Your task to perform on an android device: Clear the cart on amazon.com. Add razer blade to the cart on amazon.com Image 0: 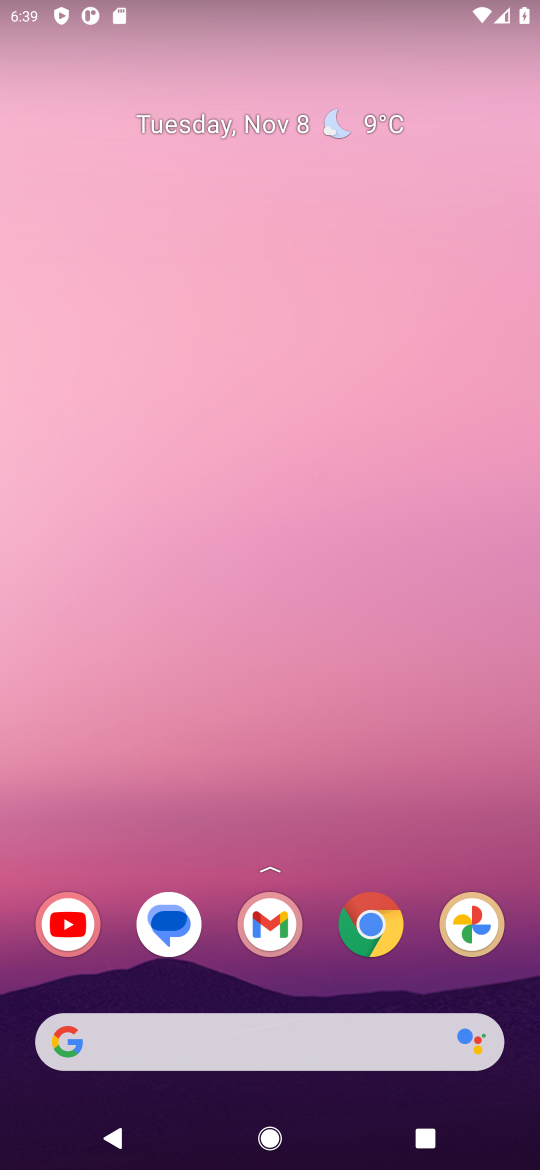
Step 0: click (238, 1049)
Your task to perform on an android device: Clear the cart on amazon.com. Add razer blade to the cart on amazon.com Image 1: 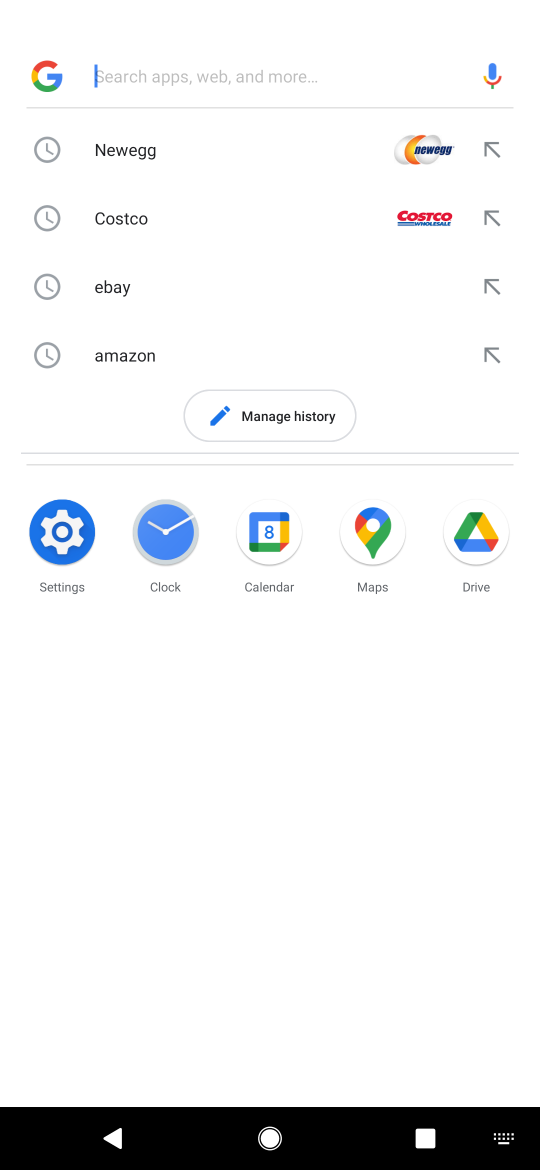
Step 1: click (119, 354)
Your task to perform on an android device: Clear the cart on amazon.com. Add razer blade to the cart on amazon.com Image 2: 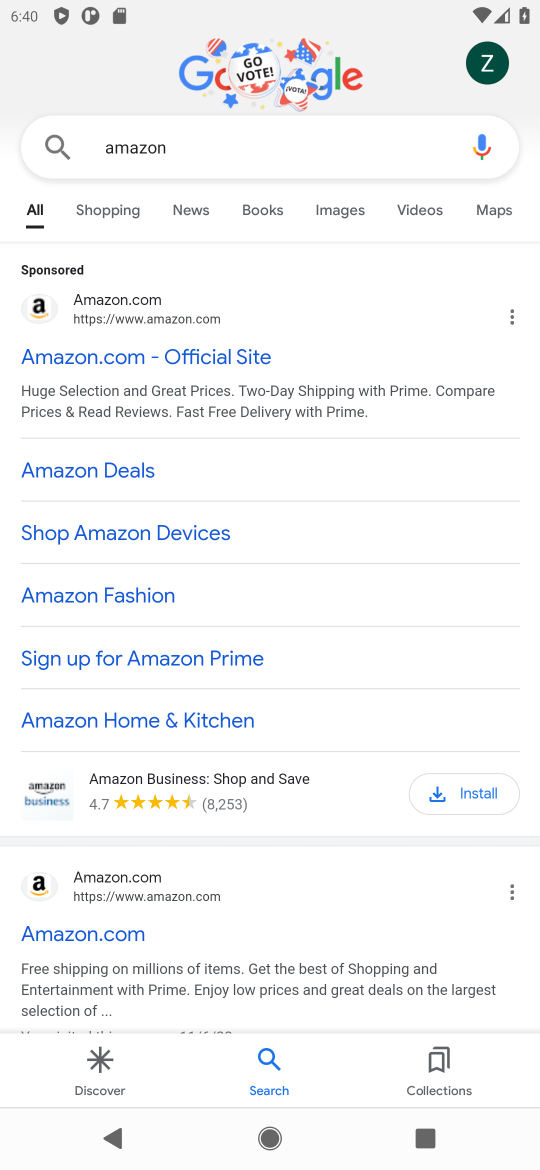
Step 2: click (119, 354)
Your task to perform on an android device: Clear the cart on amazon.com. Add razer blade to the cart on amazon.com Image 3: 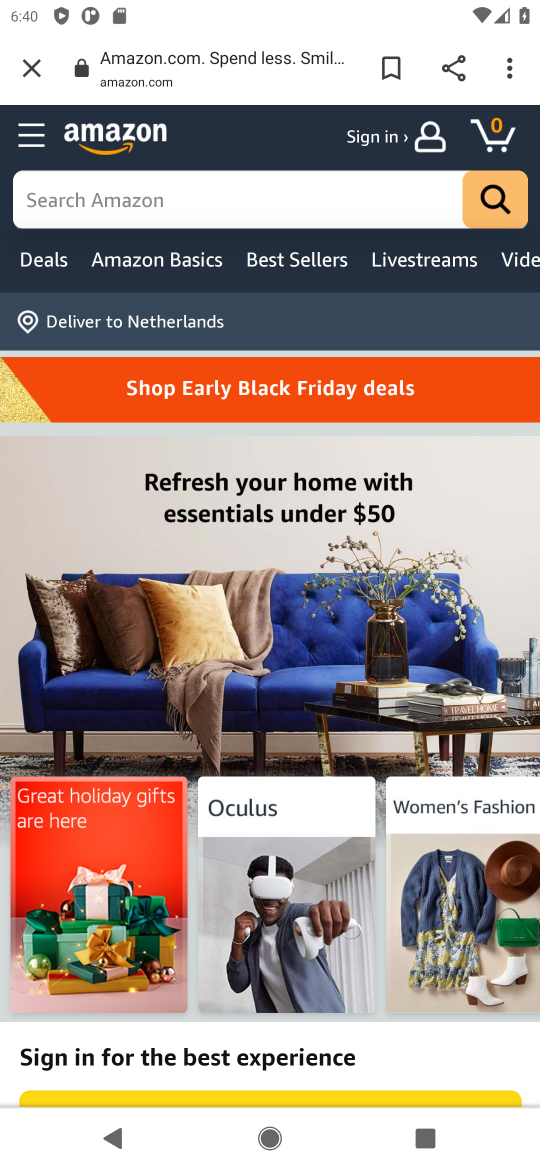
Step 3: click (492, 124)
Your task to perform on an android device: Clear the cart on amazon.com. Add razer blade to the cart on amazon.com Image 4: 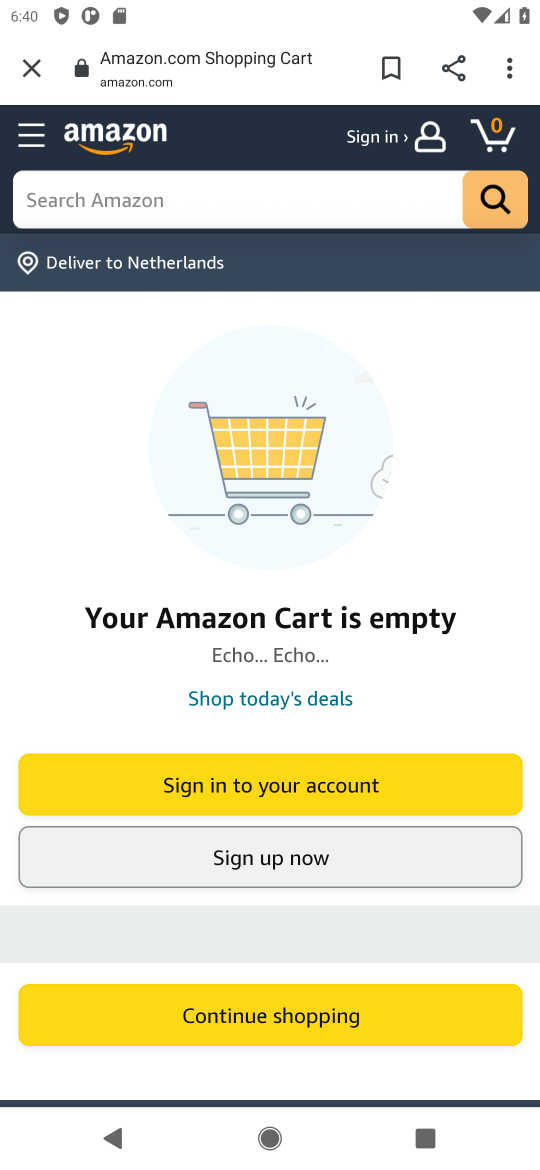
Step 4: click (309, 212)
Your task to perform on an android device: Clear the cart on amazon.com. Add razer blade to the cart on amazon.com Image 5: 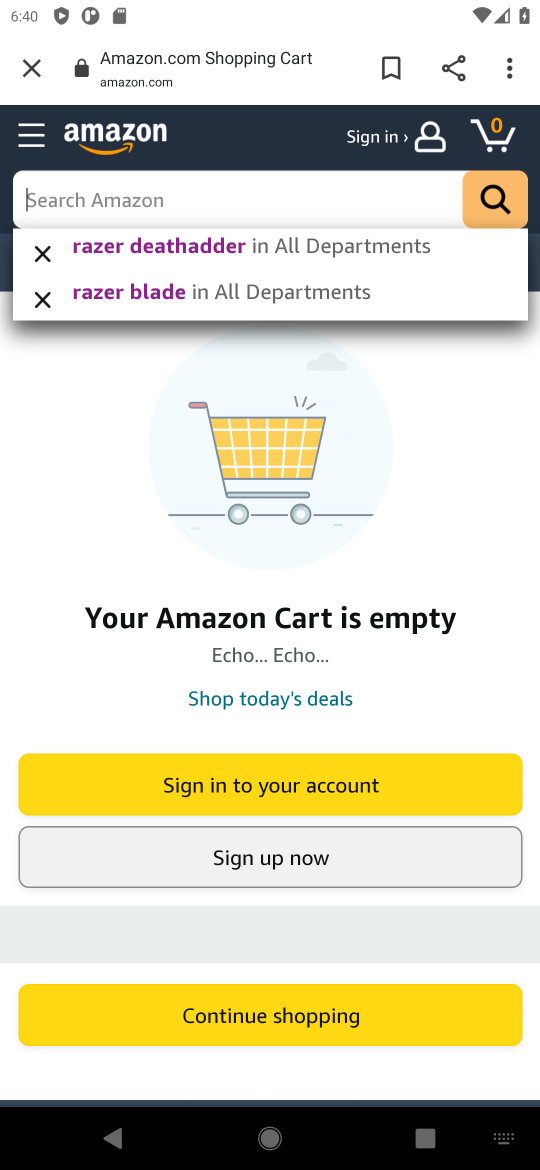
Step 5: type " razer blade "
Your task to perform on an android device: Clear the cart on amazon.com. Add razer blade to the cart on amazon.com Image 6: 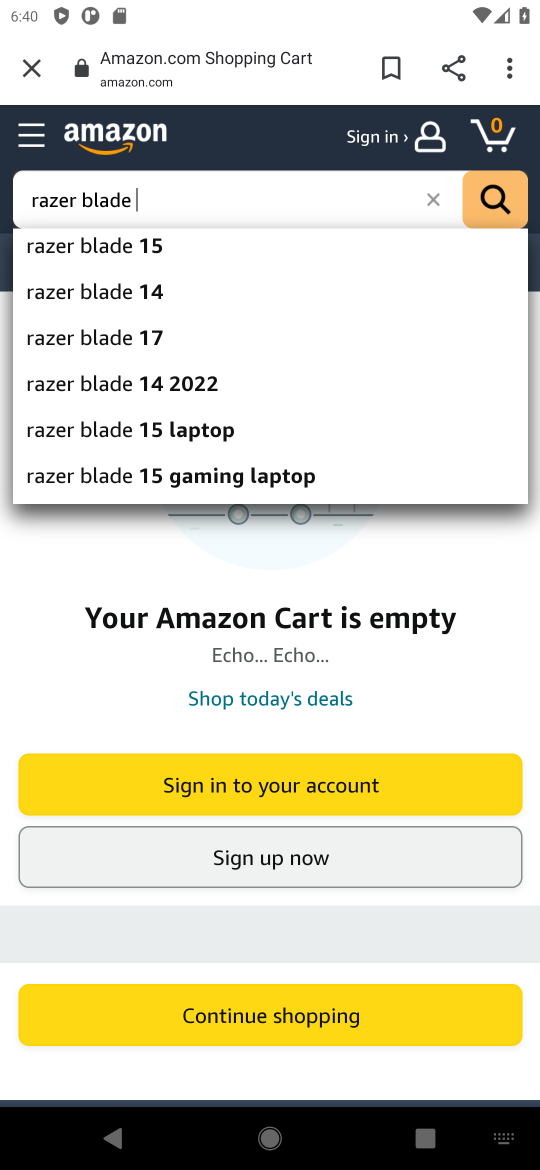
Step 6: click (492, 207)
Your task to perform on an android device: Clear the cart on amazon.com. Add razer blade to the cart on amazon.com Image 7: 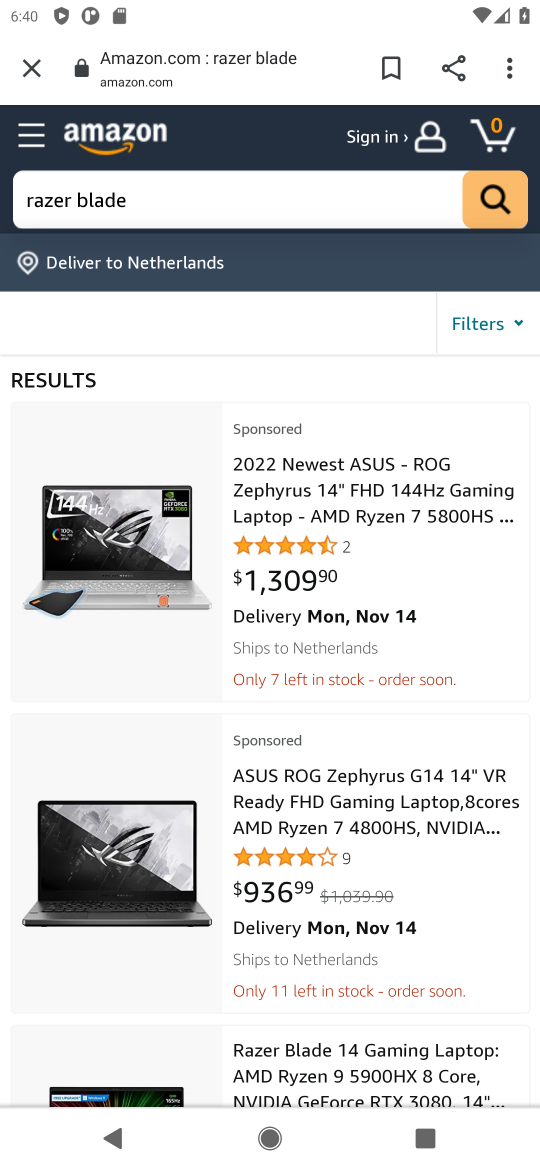
Step 7: click (286, 473)
Your task to perform on an android device: Clear the cart on amazon.com. Add razer blade to the cart on amazon.com Image 8: 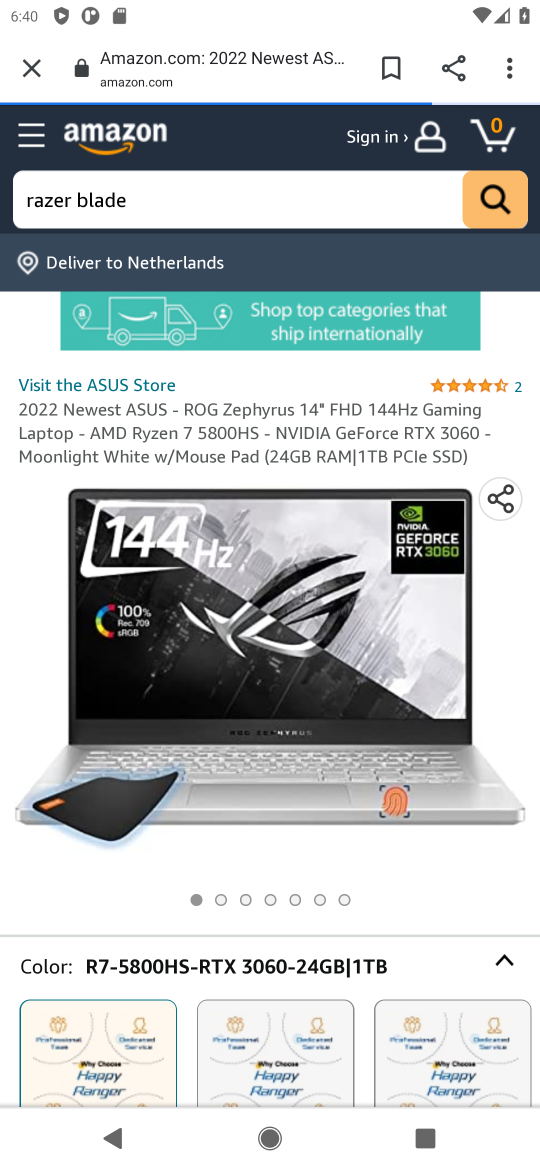
Step 8: drag from (255, 908) to (380, 420)
Your task to perform on an android device: Clear the cart on amazon.com. Add razer blade to the cart on amazon.com Image 9: 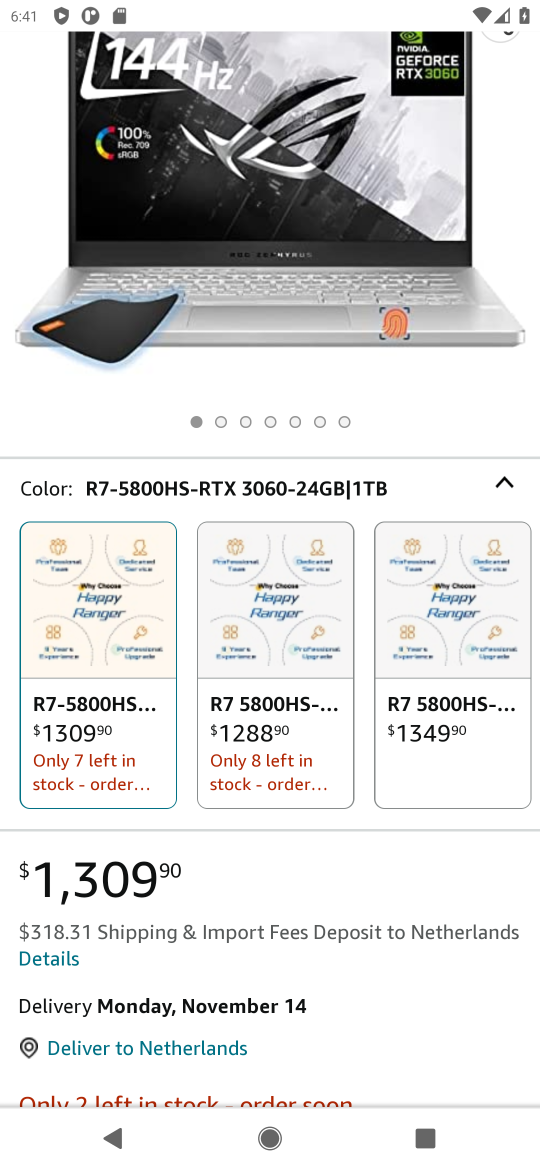
Step 9: drag from (235, 976) to (343, 601)
Your task to perform on an android device: Clear the cart on amazon.com. Add razer blade to the cart on amazon.com Image 10: 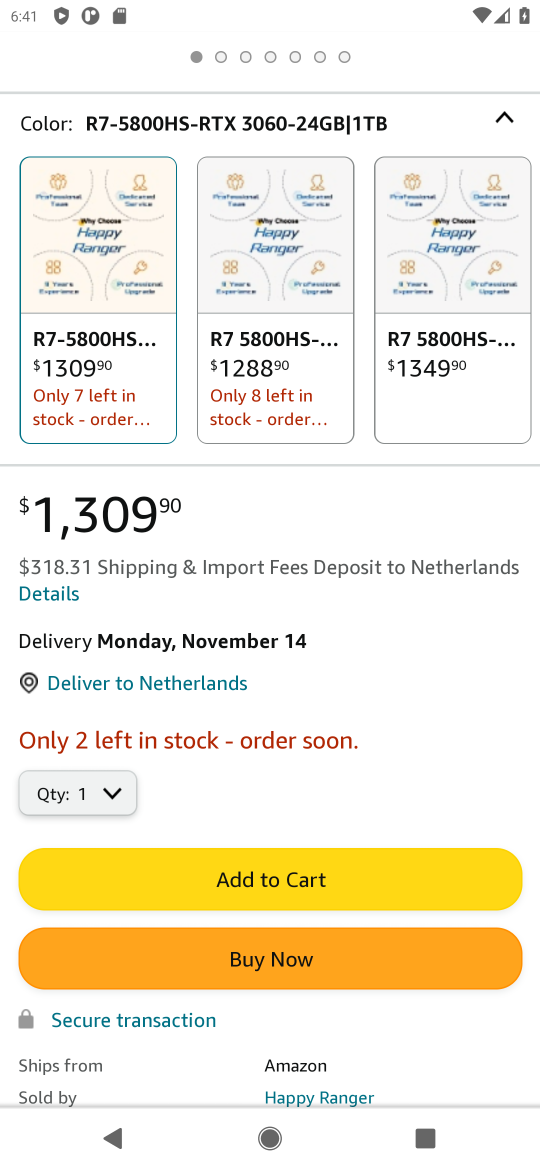
Step 10: click (276, 872)
Your task to perform on an android device: Clear the cart on amazon.com. Add razer blade to the cart on amazon.com Image 11: 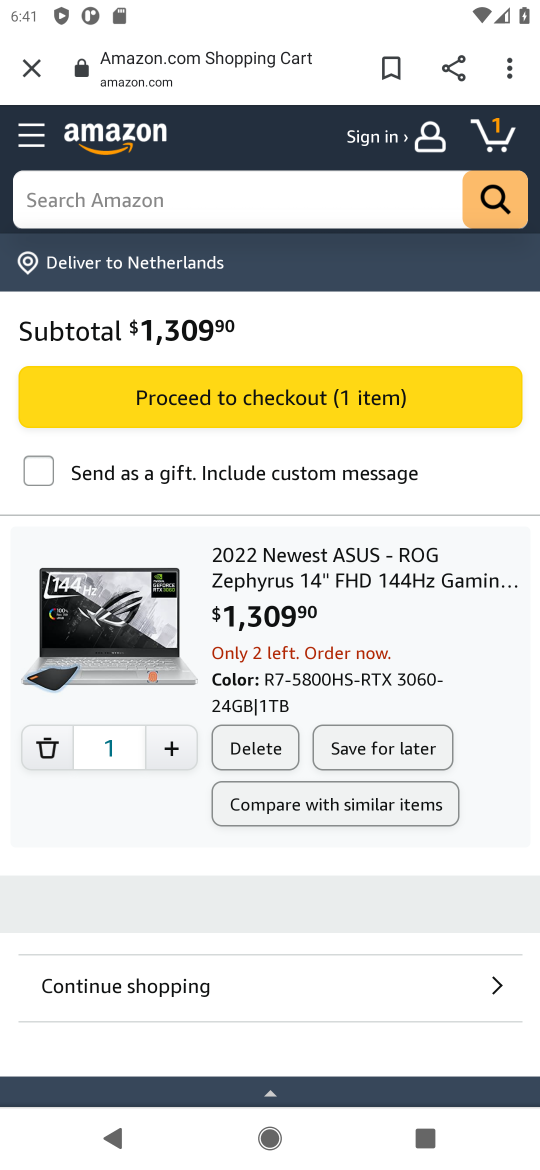
Step 11: task complete